Your task to perform on an android device: See recent photos Image 0: 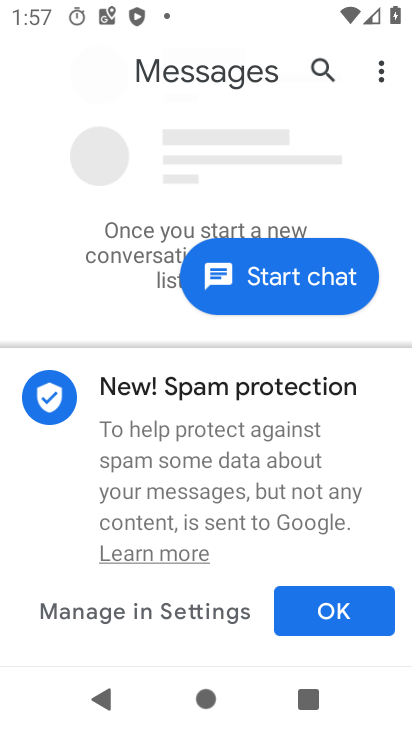
Step 0: press home button
Your task to perform on an android device: See recent photos Image 1: 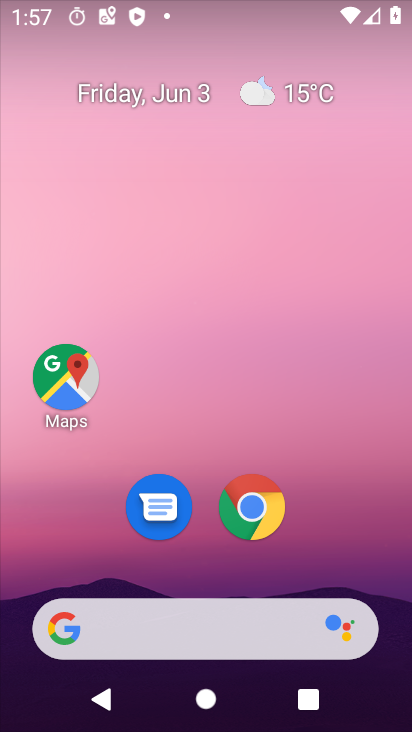
Step 1: drag from (395, 651) to (264, 41)
Your task to perform on an android device: See recent photos Image 2: 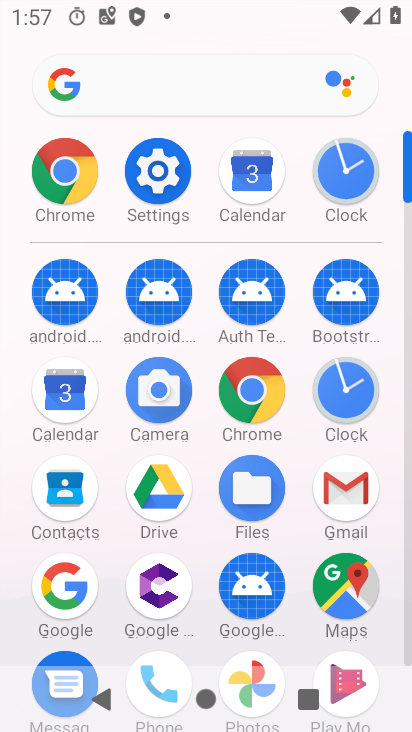
Step 2: click (242, 659)
Your task to perform on an android device: See recent photos Image 3: 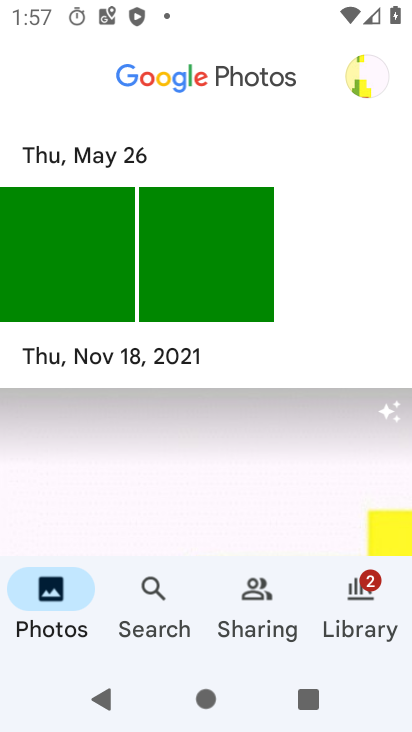
Step 3: click (119, 256)
Your task to perform on an android device: See recent photos Image 4: 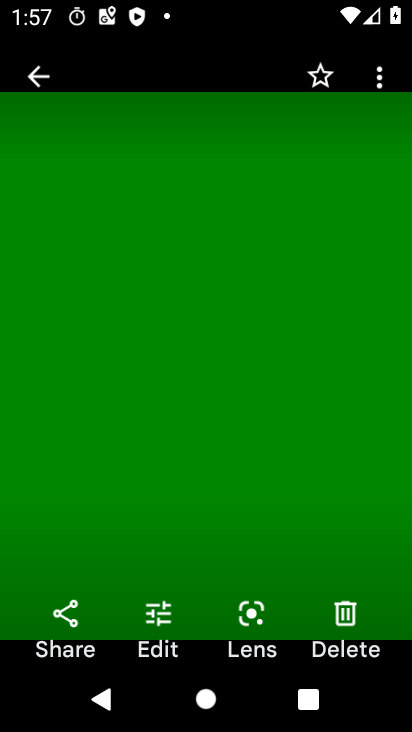
Step 4: task complete